Your task to perform on an android device: Open settings Image 0: 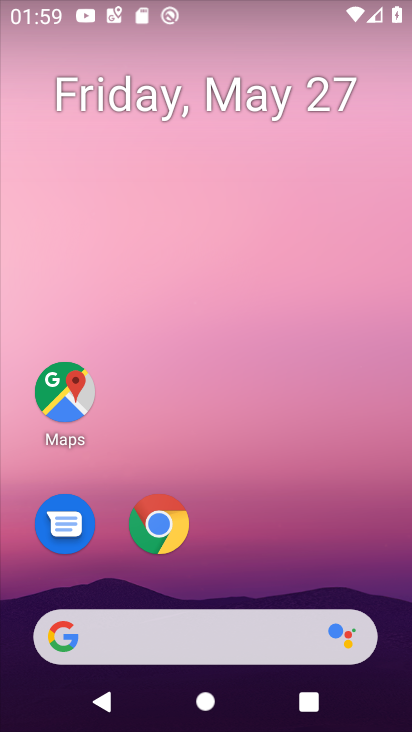
Step 0: drag from (277, 97) to (274, 31)
Your task to perform on an android device: Open settings Image 1: 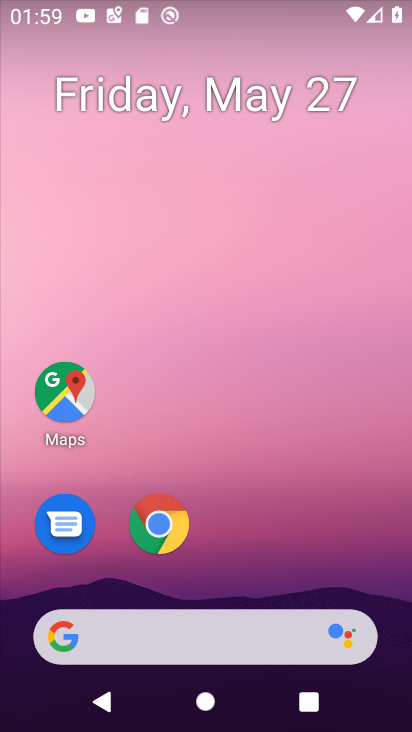
Step 1: drag from (257, 538) to (282, 10)
Your task to perform on an android device: Open settings Image 2: 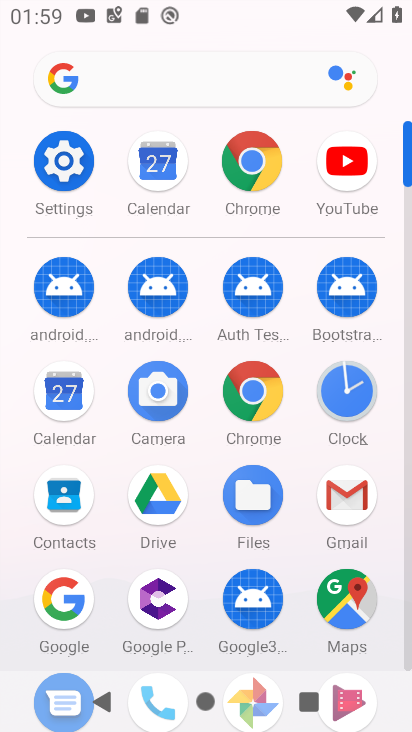
Step 2: click (73, 170)
Your task to perform on an android device: Open settings Image 3: 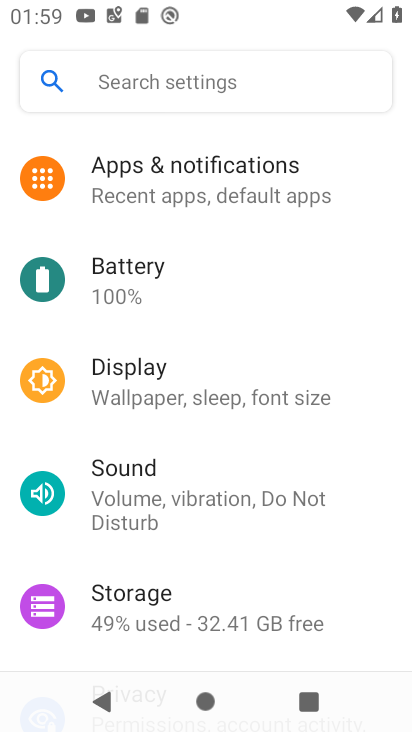
Step 3: task complete